Your task to perform on an android device: Search for pizza restaurants on Maps Image 0: 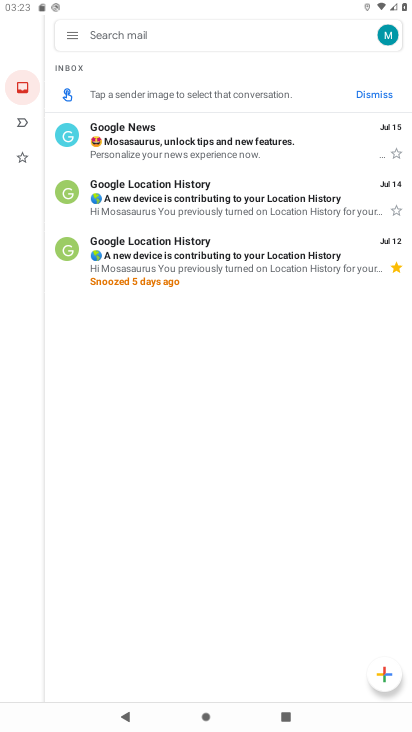
Step 0: press home button
Your task to perform on an android device: Search for pizza restaurants on Maps Image 1: 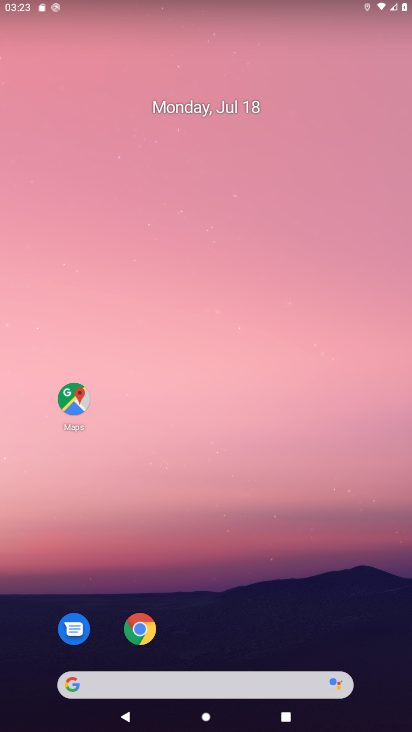
Step 1: drag from (330, 595) to (335, 146)
Your task to perform on an android device: Search for pizza restaurants on Maps Image 2: 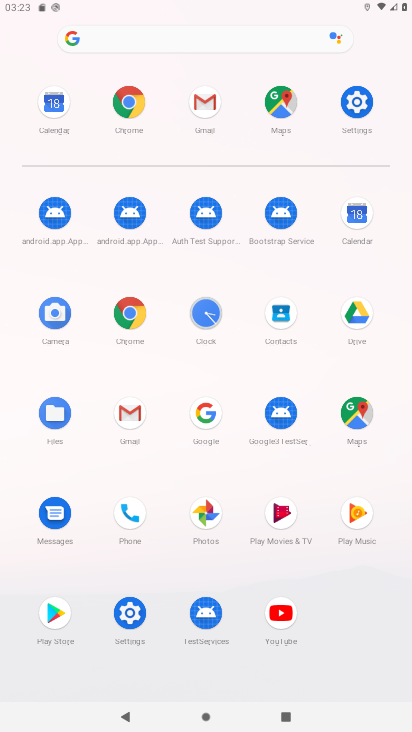
Step 2: click (349, 419)
Your task to perform on an android device: Search for pizza restaurants on Maps Image 3: 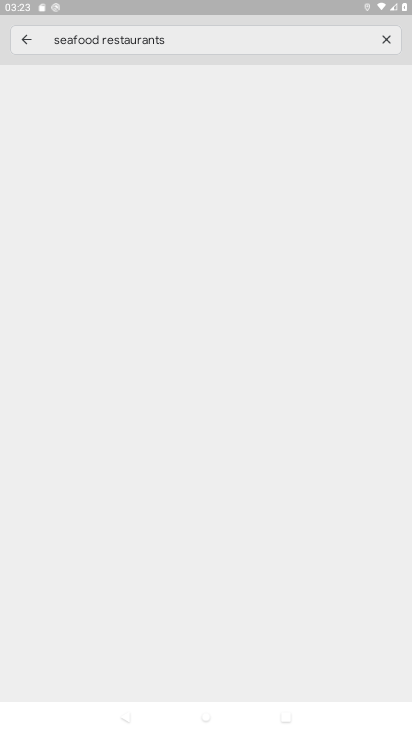
Step 3: press back button
Your task to perform on an android device: Search for pizza restaurants on Maps Image 4: 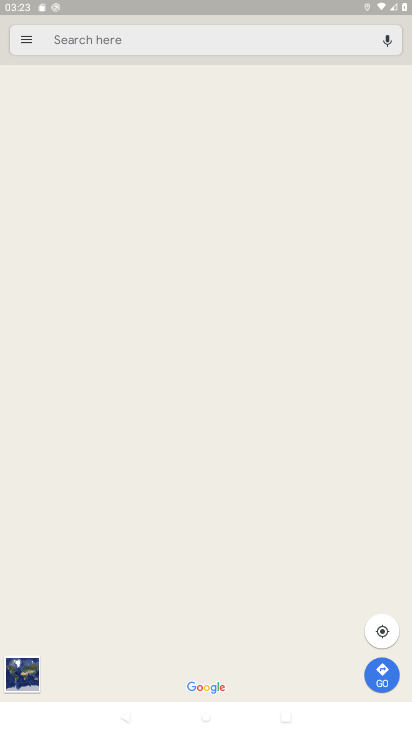
Step 4: click (276, 44)
Your task to perform on an android device: Search for pizza restaurants on Maps Image 5: 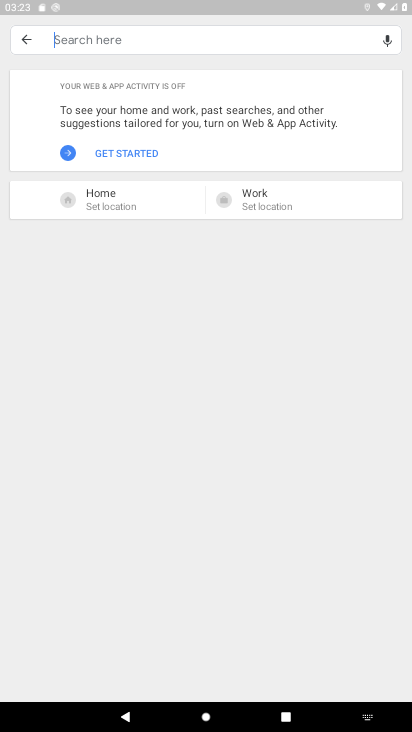
Step 5: type "pizza restaurants"
Your task to perform on an android device: Search for pizza restaurants on Maps Image 6: 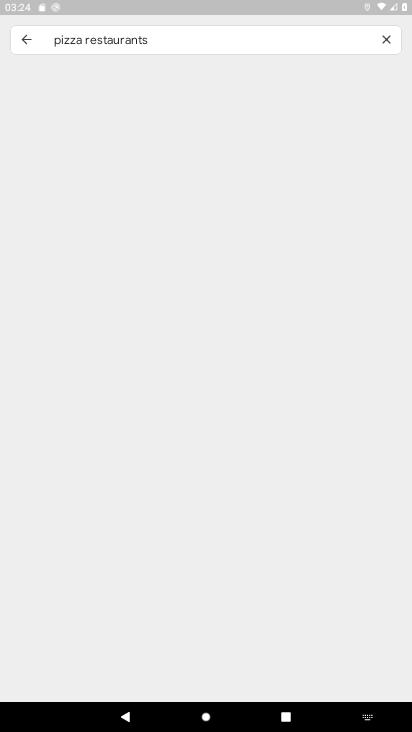
Step 6: task complete